Your task to perform on an android device: change text size in settings app Image 0: 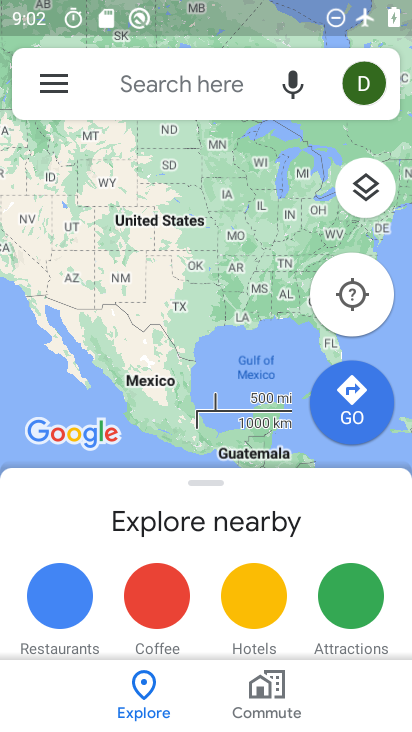
Step 0: press home button
Your task to perform on an android device: change text size in settings app Image 1: 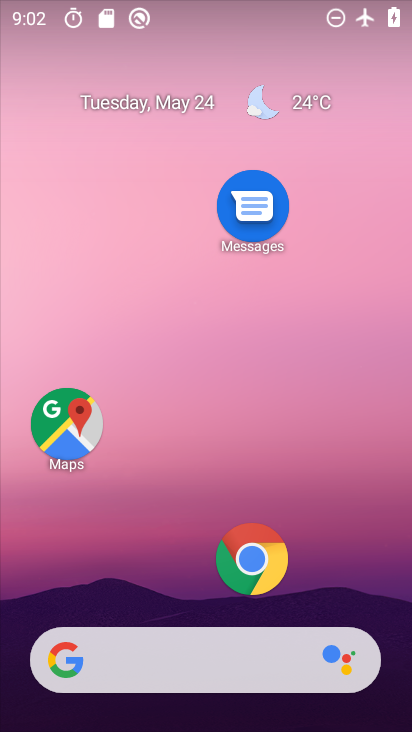
Step 1: drag from (157, 568) to (159, 155)
Your task to perform on an android device: change text size in settings app Image 2: 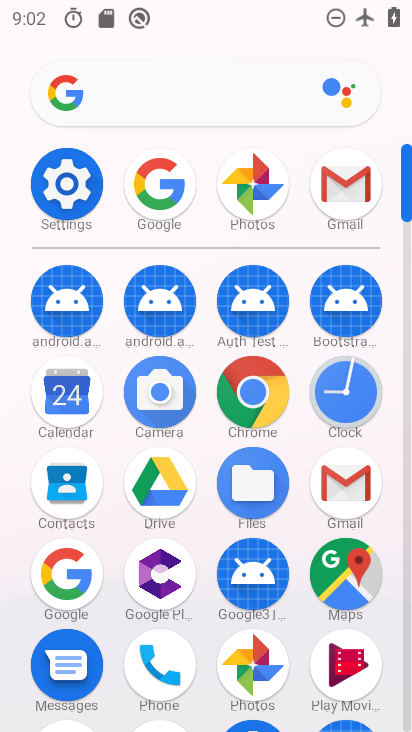
Step 2: click (73, 210)
Your task to perform on an android device: change text size in settings app Image 3: 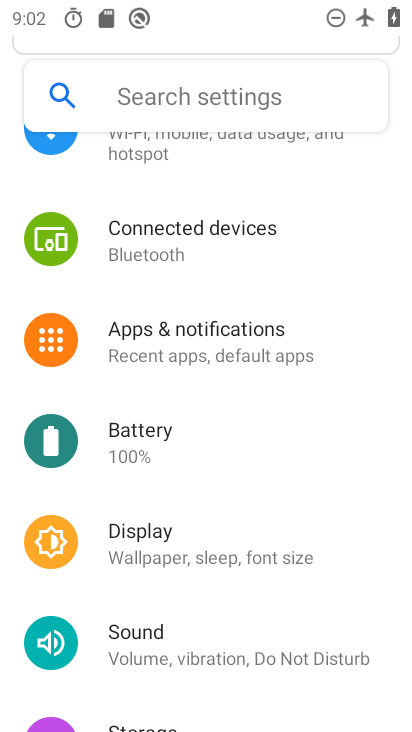
Step 3: click (193, 520)
Your task to perform on an android device: change text size in settings app Image 4: 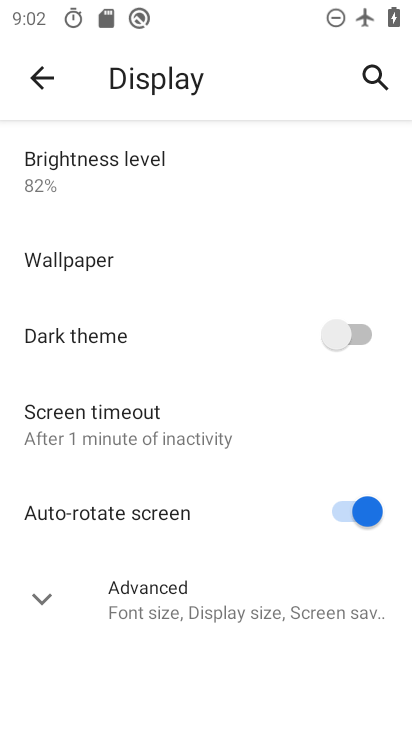
Step 4: click (163, 604)
Your task to perform on an android device: change text size in settings app Image 5: 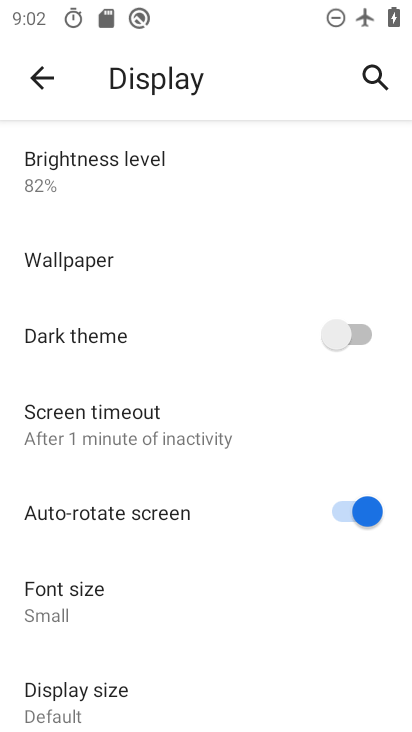
Step 5: drag from (148, 645) to (152, 445)
Your task to perform on an android device: change text size in settings app Image 6: 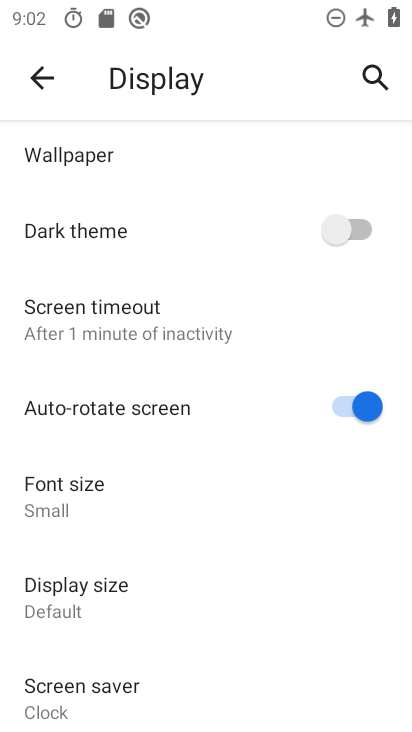
Step 6: drag from (160, 648) to (184, 398)
Your task to perform on an android device: change text size in settings app Image 7: 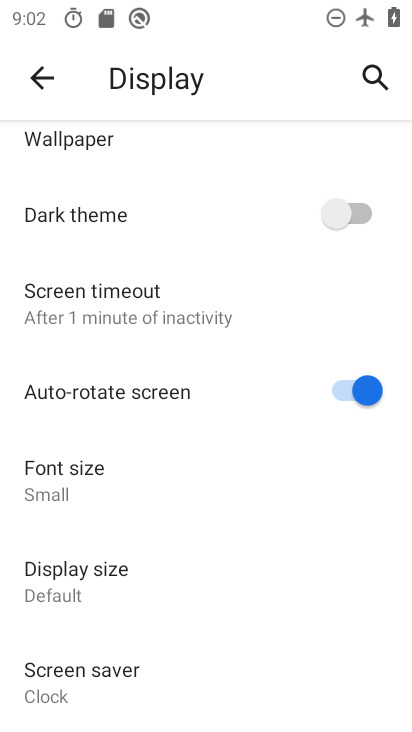
Step 7: click (89, 477)
Your task to perform on an android device: change text size in settings app Image 8: 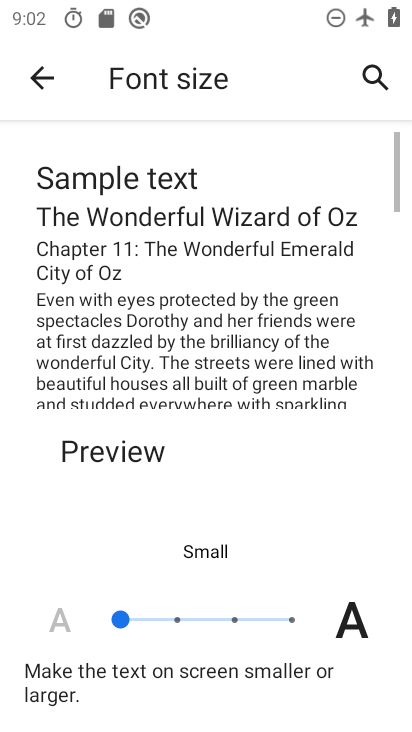
Step 8: click (162, 624)
Your task to perform on an android device: change text size in settings app Image 9: 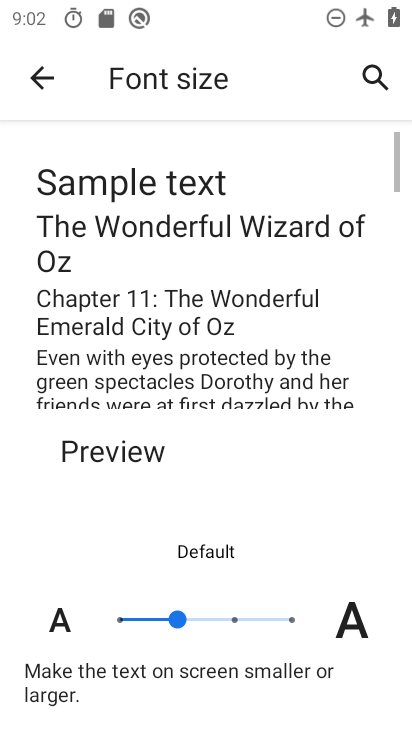
Step 9: task complete